Your task to perform on an android device: turn on showing notifications on the lock screen Image 0: 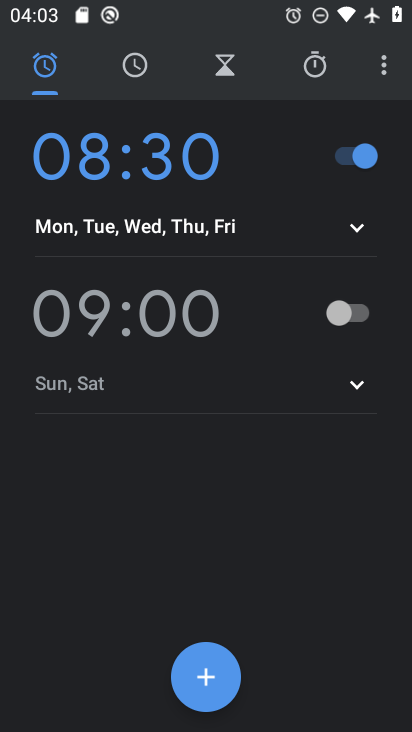
Step 0: press home button
Your task to perform on an android device: turn on showing notifications on the lock screen Image 1: 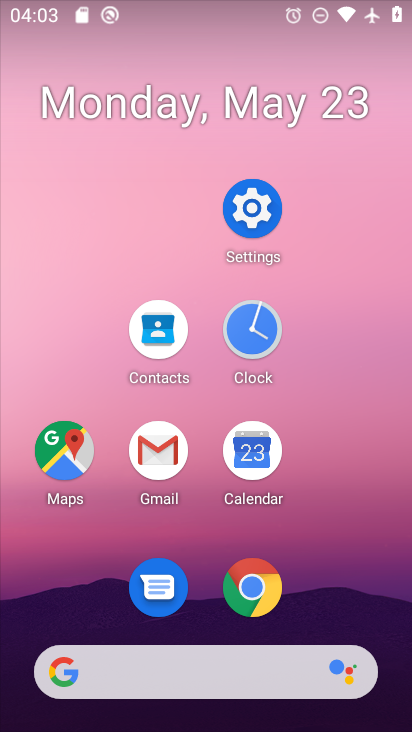
Step 1: click (260, 244)
Your task to perform on an android device: turn on showing notifications on the lock screen Image 2: 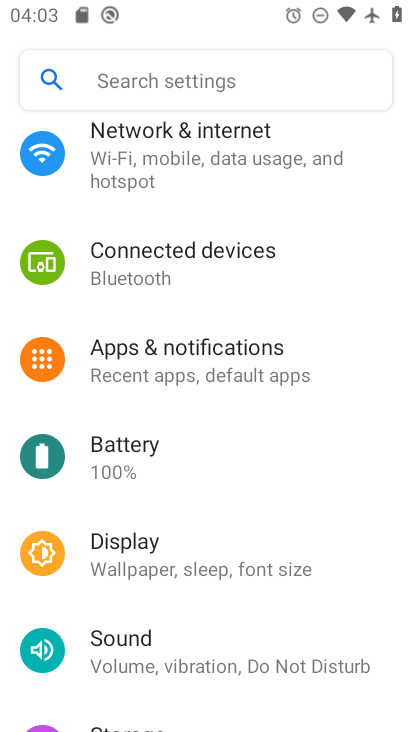
Step 2: click (203, 390)
Your task to perform on an android device: turn on showing notifications on the lock screen Image 3: 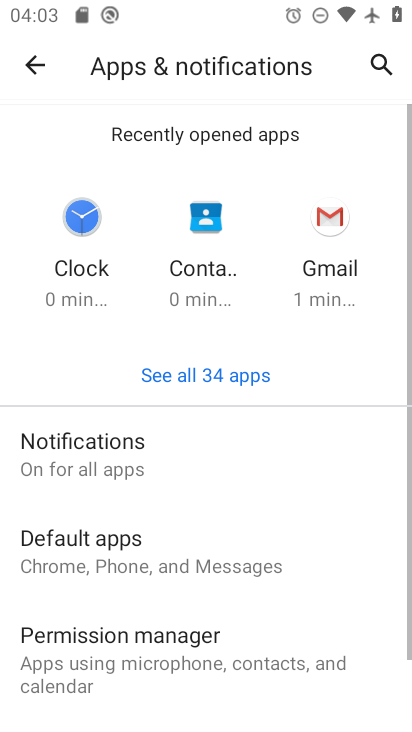
Step 3: drag from (180, 576) to (227, 347)
Your task to perform on an android device: turn on showing notifications on the lock screen Image 4: 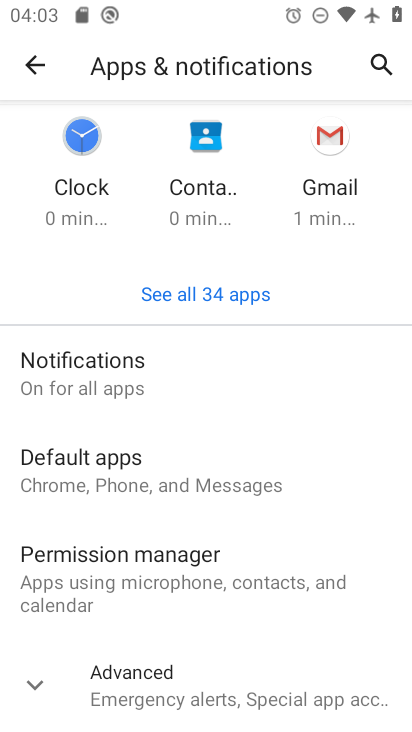
Step 4: click (227, 347)
Your task to perform on an android device: turn on showing notifications on the lock screen Image 5: 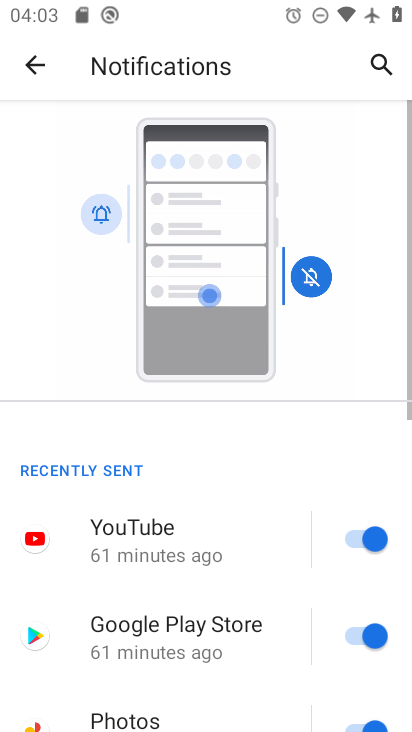
Step 5: drag from (195, 563) to (292, 78)
Your task to perform on an android device: turn on showing notifications on the lock screen Image 6: 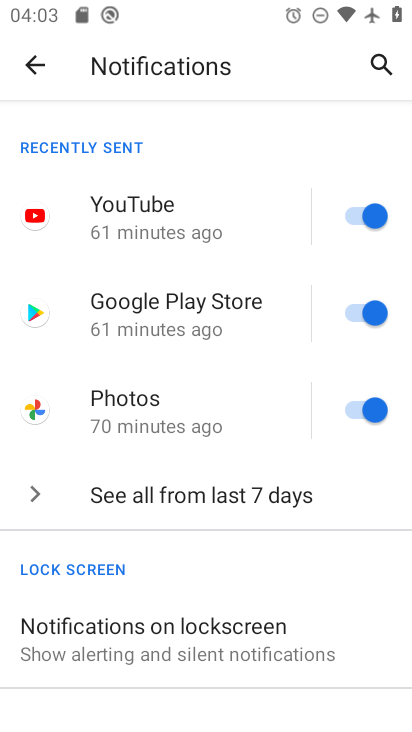
Step 6: click (188, 622)
Your task to perform on an android device: turn on showing notifications on the lock screen Image 7: 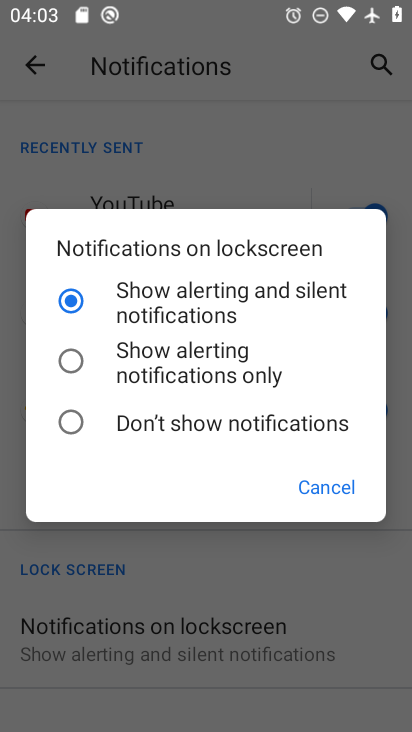
Step 7: click (198, 361)
Your task to perform on an android device: turn on showing notifications on the lock screen Image 8: 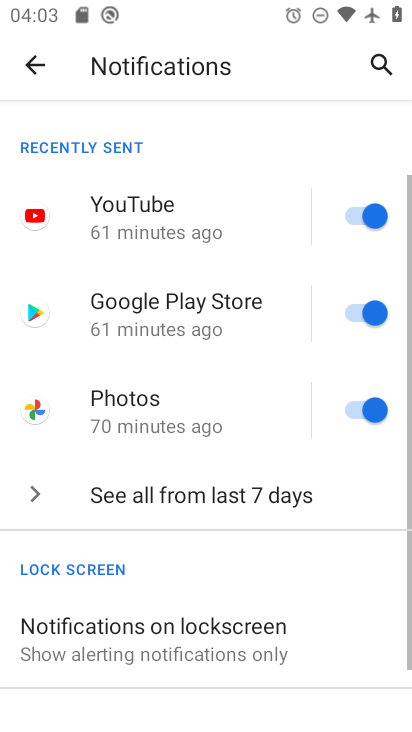
Step 8: task complete